Your task to perform on an android device: check storage Image 0: 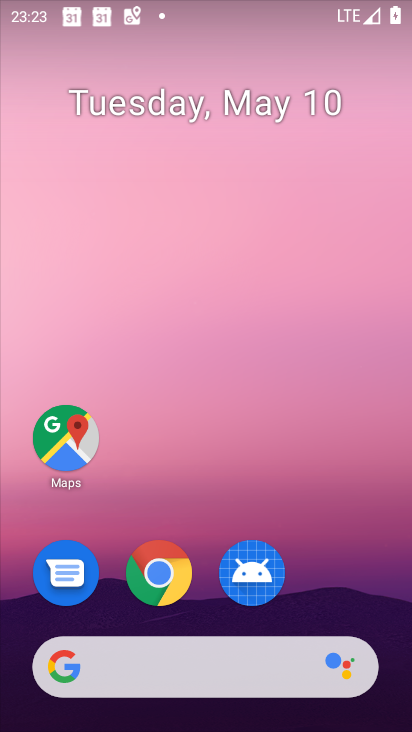
Step 0: drag from (333, 549) to (257, 29)
Your task to perform on an android device: check storage Image 1: 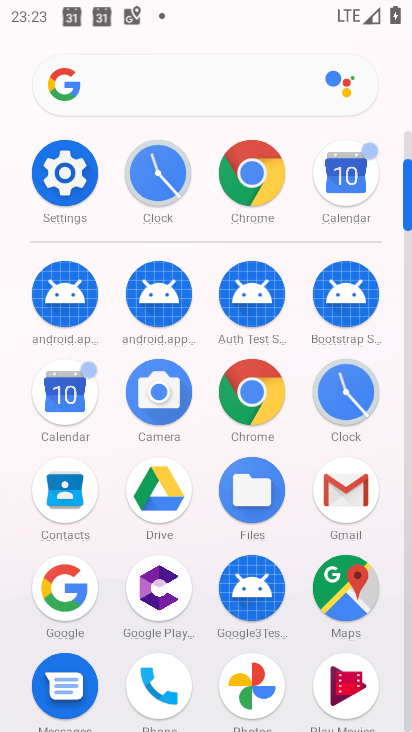
Step 1: click (63, 179)
Your task to perform on an android device: check storage Image 2: 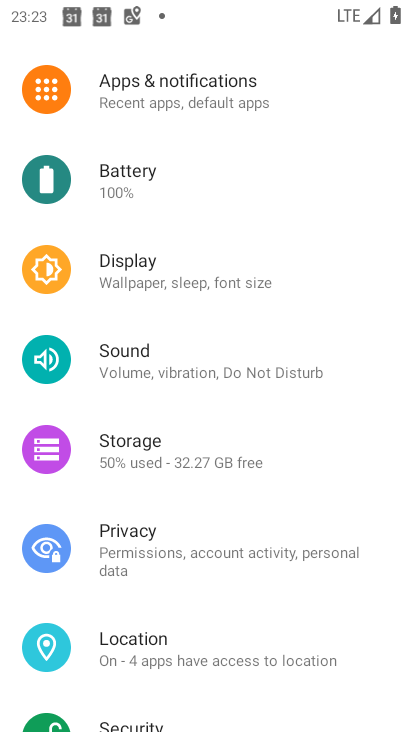
Step 2: click (132, 438)
Your task to perform on an android device: check storage Image 3: 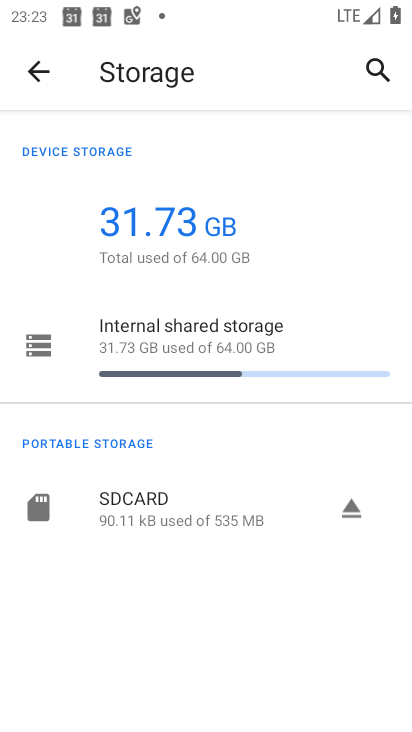
Step 3: task complete